Your task to perform on an android device: turn on notifications settings in the gmail app Image 0: 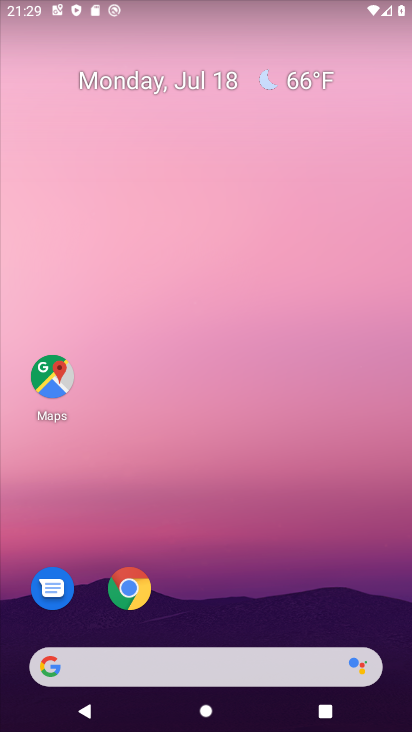
Step 0: drag from (148, 655) to (296, 187)
Your task to perform on an android device: turn on notifications settings in the gmail app Image 1: 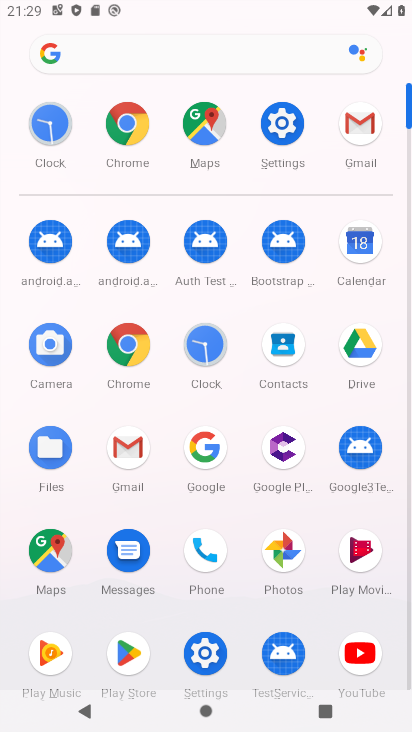
Step 1: click (361, 122)
Your task to perform on an android device: turn on notifications settings in the gmail app Image 2: 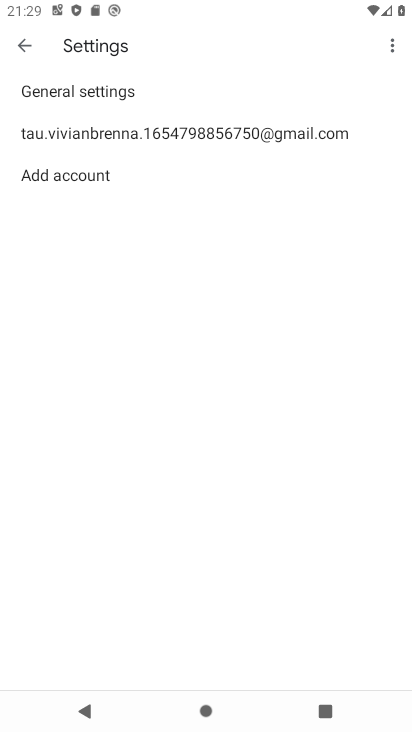
Step 2: click (246, 130)
Your task to perform on an android device: turn on notifications settings in the gmail app Image 3: 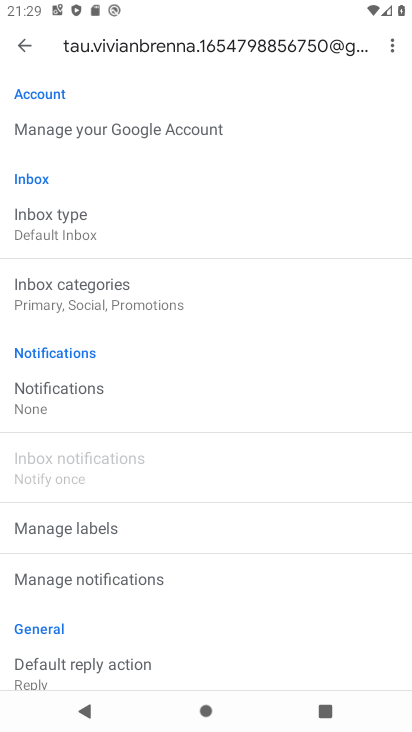
Step 3: click (51, 408)
Your task to perform on an android device: turn on notifications settings in the gmail app Image 4: 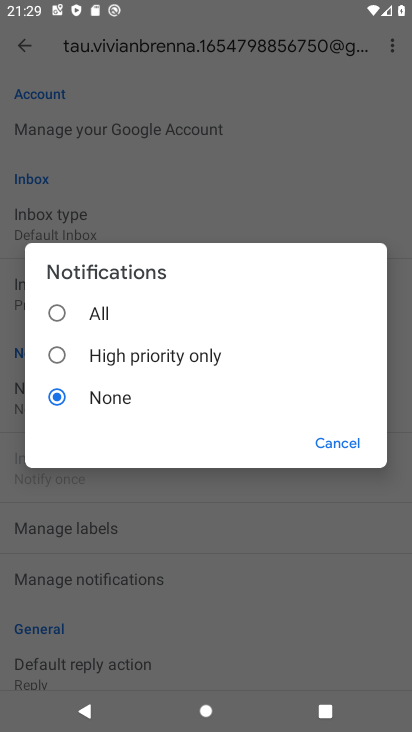
Step 4: click (53, 312)
Your task to perform on an android device: turn on notifications settings in the gmail app Image 5: 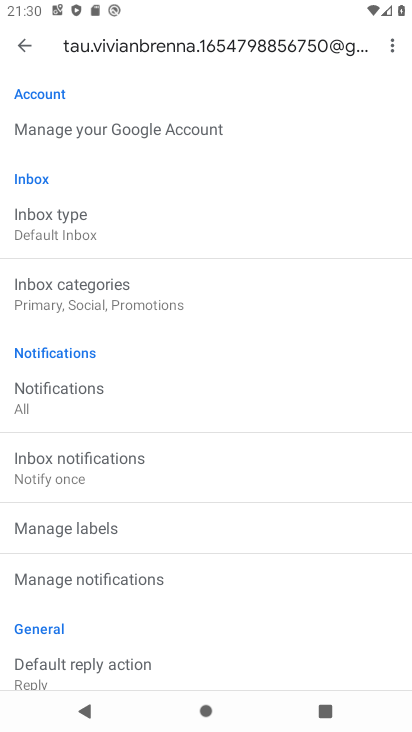
Step 5: task complete